Your task to perform on an android device: Open calendar and show me the third week of next month Image 0: 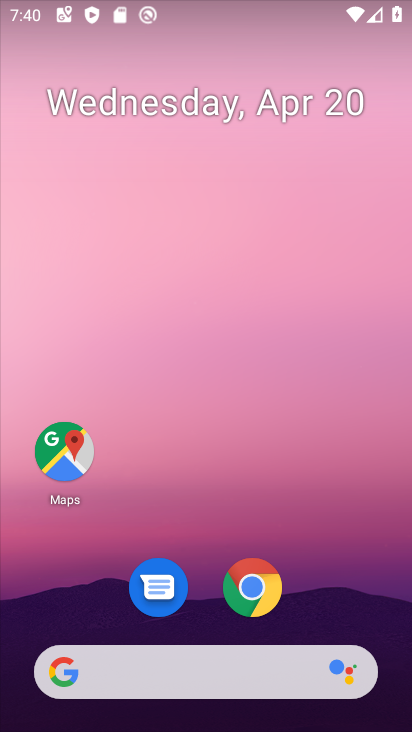
Step 0: drag from (345, 565) to (365, 117)
Your task to perform on an android device: Open calendar and show me the third week of next month Image 1: 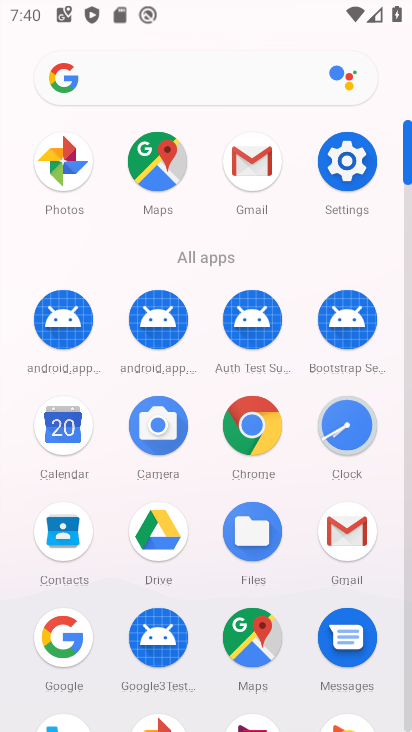
Step 1: click (66, 436)
Your task to perform on an android device: Open calendar and show me the third week of next month Image 2: 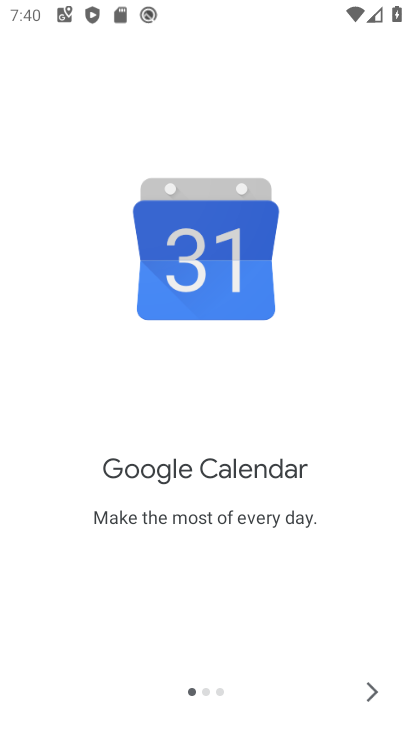
Step 2: click (375, 692)
Your task to perform on an android device: Open calendar and show me the third week of next month Image 3: 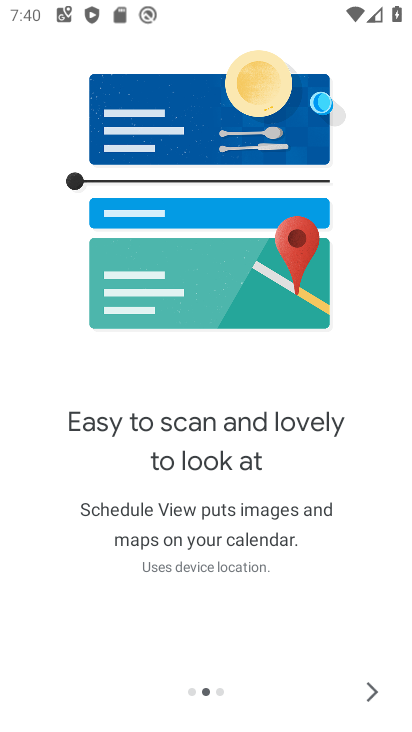
Step 3: click (376, 692)
Your task to perform on an android device: Open calendar and show me the third week of next month Image 4: 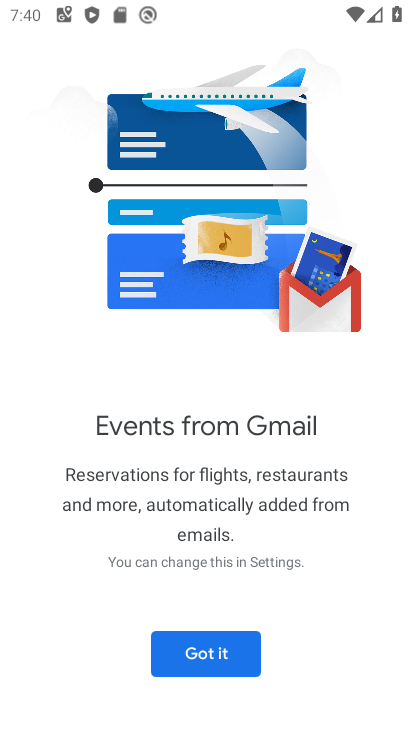
Step 4: click (197, 660)
Your task to perform on an android device: Open calendar and show me the third week of next month Image 5: 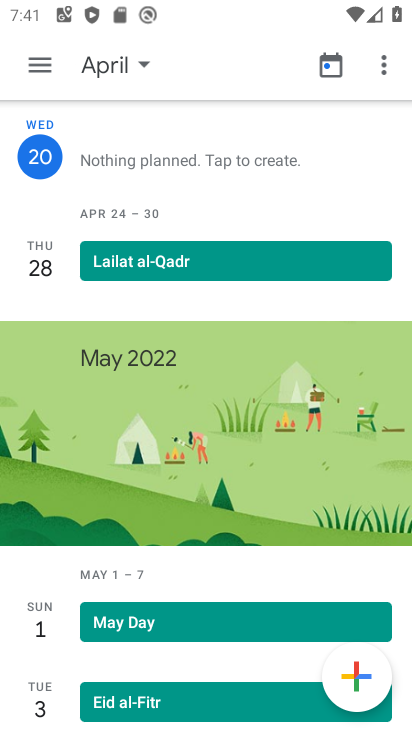
Step 5: click (142, 65)
Your task to perform on an android device: Open calendar and show me the third week of next month Image 6: 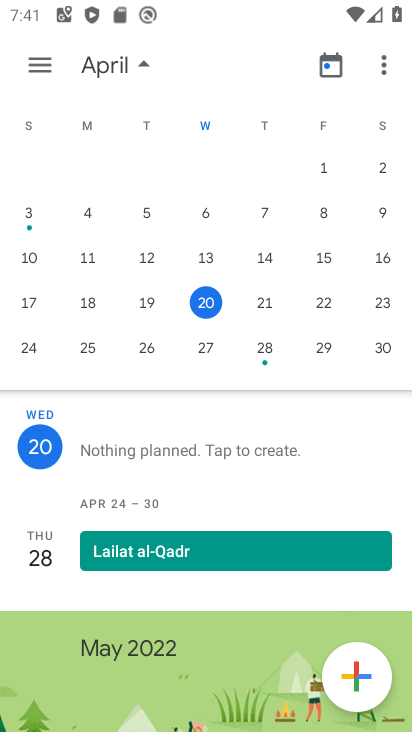
Step 6: drag from (394, 278) to (15, 276)
Your task to perform on an android device: Open calendar and show me the third week of next month Image 7: 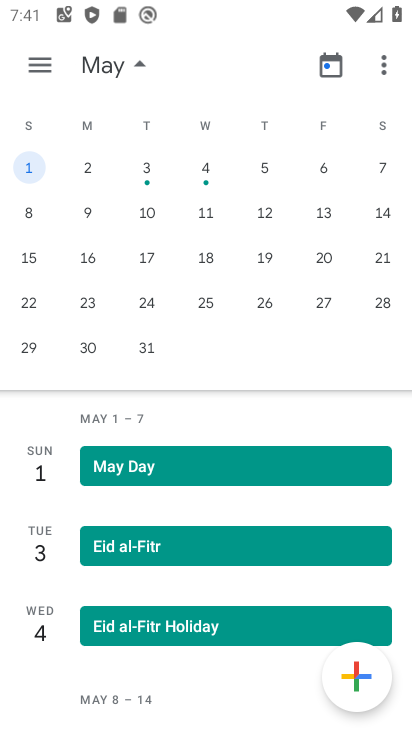
Step 7: click (145, 256)
Your task to perform on an android device: Open calendar and show me the third week of next month Image 8: 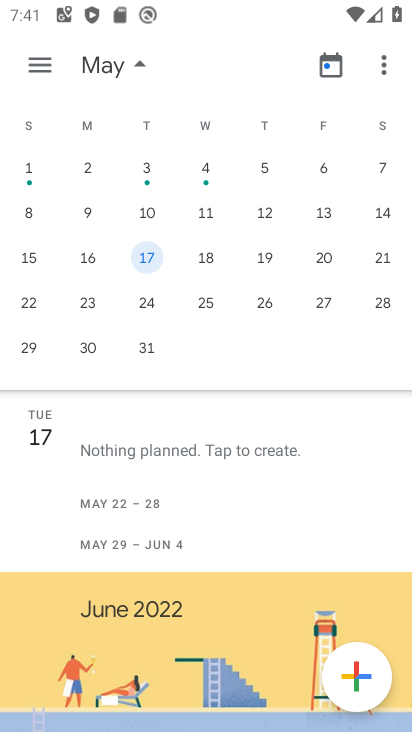
Step 8: task complete